Your task to perform on an android device: Go to sound settings Image 0: 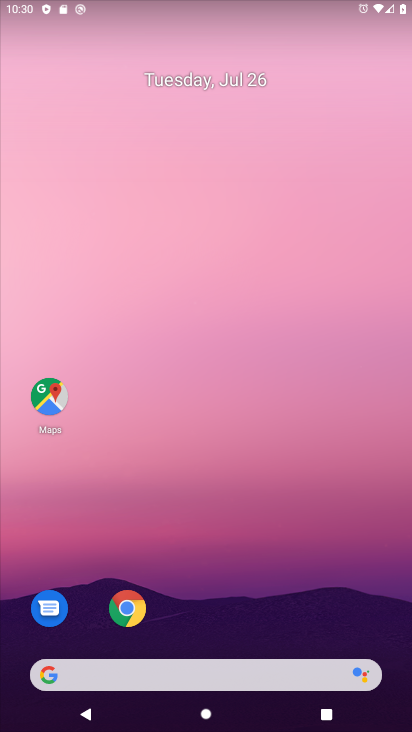
Step 0: drag from (226, 725) to (226, 184)
Your task to perform on an android device: Go to sound settings Image 1: 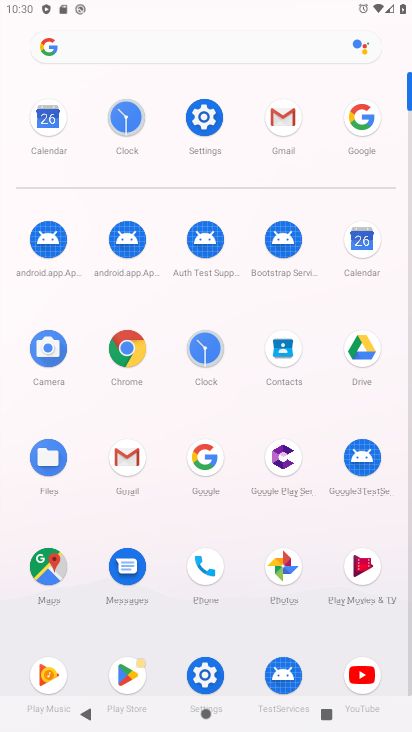
Step 1: click (203, 124)
Your task to perform on an android device: Go to sound settings Image 2: 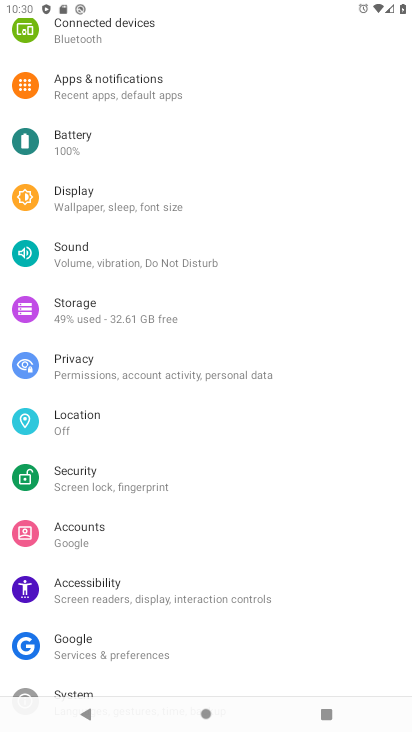
Step 2: click (71, 256)
Your task to perform on an android device: Go to sound settings Image 3: 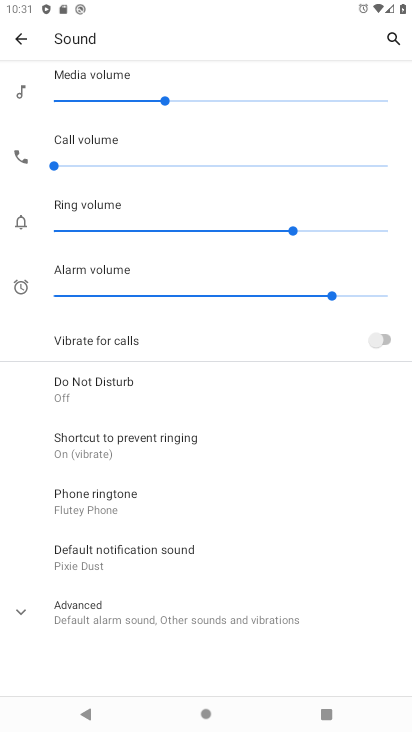
Step 3: task complete